Your task to perform on an android device: toggle show notifications on the lock screen Image 0: 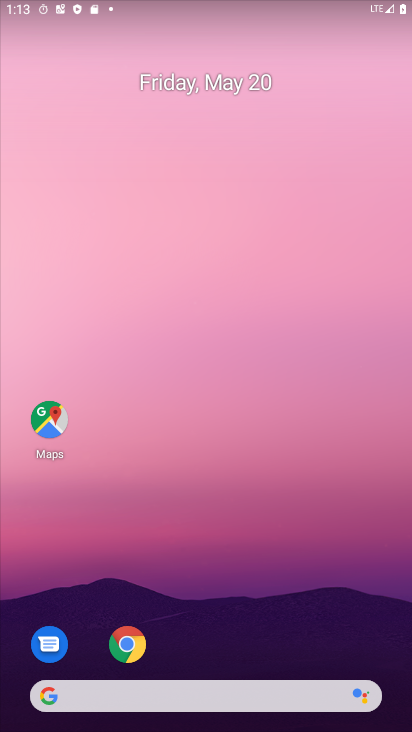
Step 0: drag from (251, 9) to (253, 44)
Your task to perform on an android device: toggle show notifications on the lock screen Image 1: 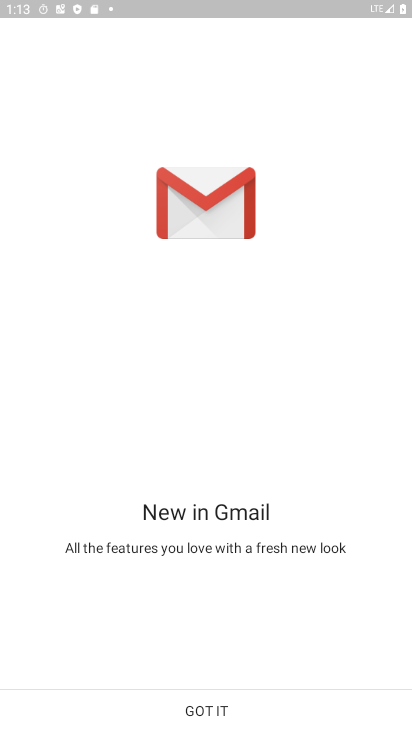
Step 1: press home button
Your task to perform on an android device: toggle show notifications on the lock screen Image 2: 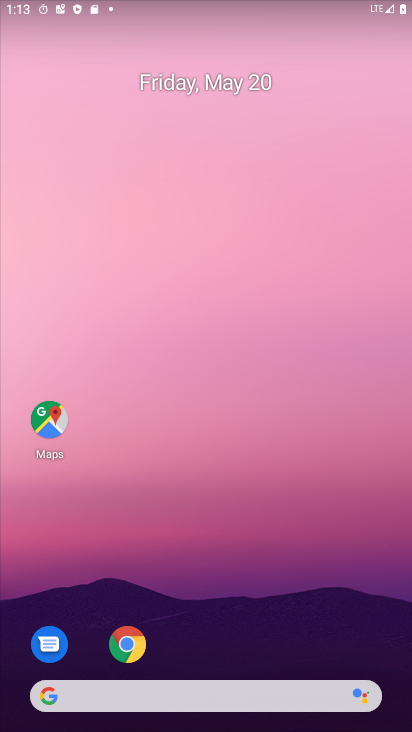
Step 2: drag from (334, 569) to (331, 40)
Your task to perform on an android device: toggle show notifications on the lock screen Image 3: 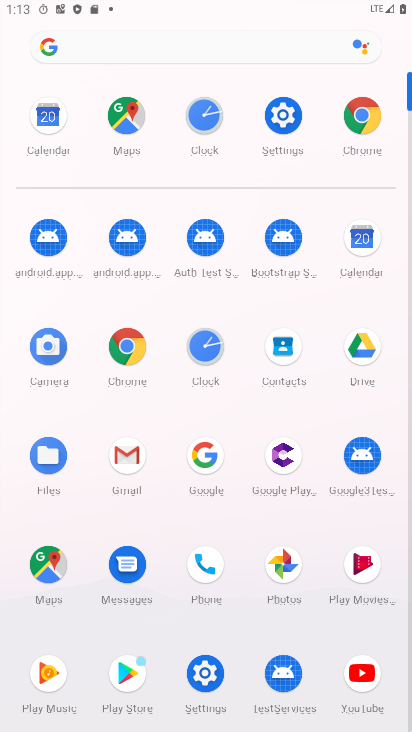
Step 3: click (297, 129)
Your task to perform on an android device: toggle show notifications on the lock screen Image 4: 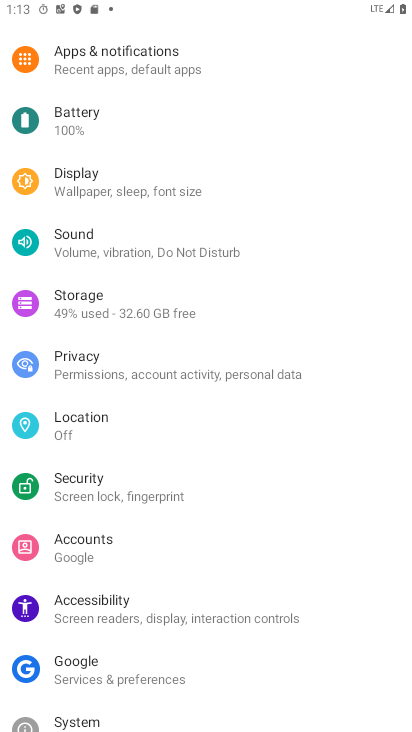
Step 4: drag from (196, 245) to (135, 542)
Your task to perform on an android device: toggle show notifications on the lock screen Image 5: 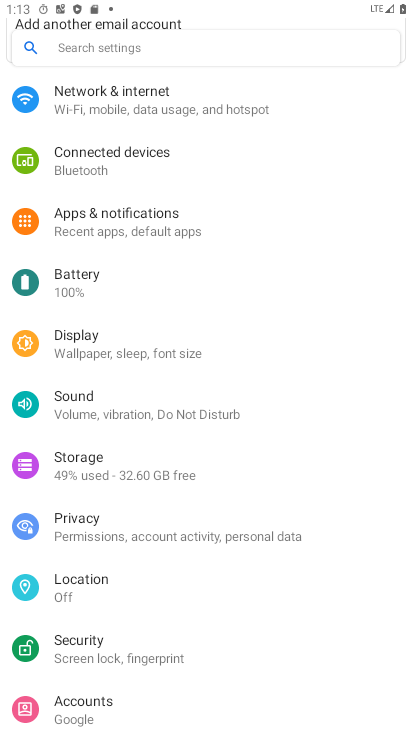
Step 5: click (149, 231)
Your task to perform on an android device: toggle show notifications on the lock screen Image 6: 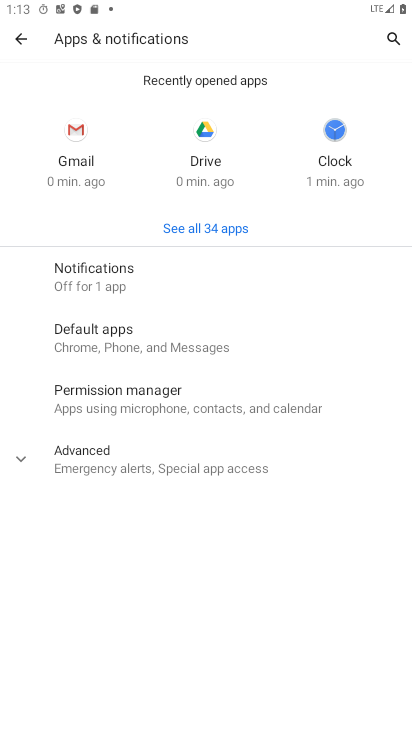
Step 6: click (123, 291)
Your task to perform on an android device: toggle show notifications on the lock screen Image 7: 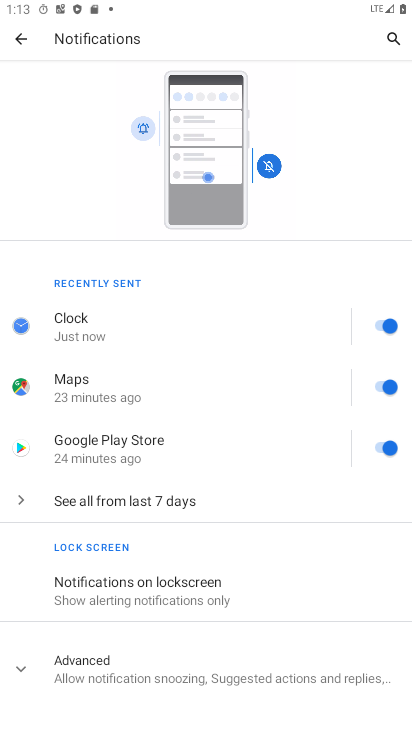
Step 7: click (138, 589)
Your task to perform on an android device: toggle show notifications on the lock screen Image 8: 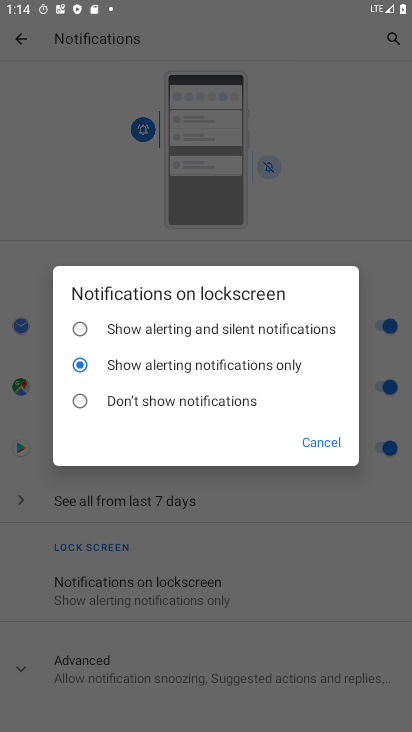
Step 8: click (108, 329)
Your task to perform on an android device: toggle show notifications on the lock screen Image 9: 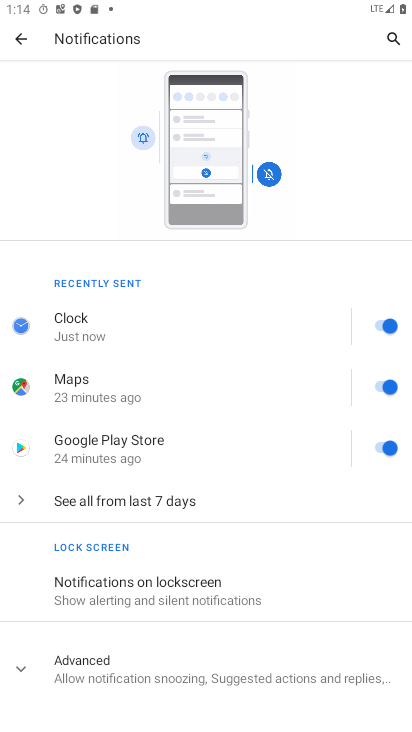
Step 9: task complete